Your task to perform on an android device: set an alarm Image 0: 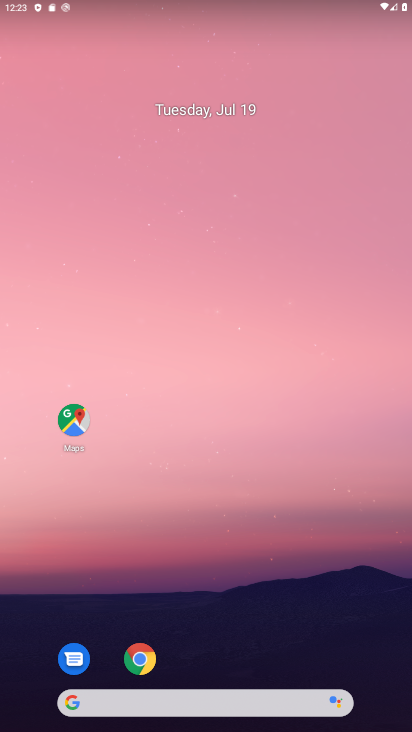
Step 0: drag from (211, 703) to (204, 246)
Your task to perform on an android device: set an alarm Image 1: 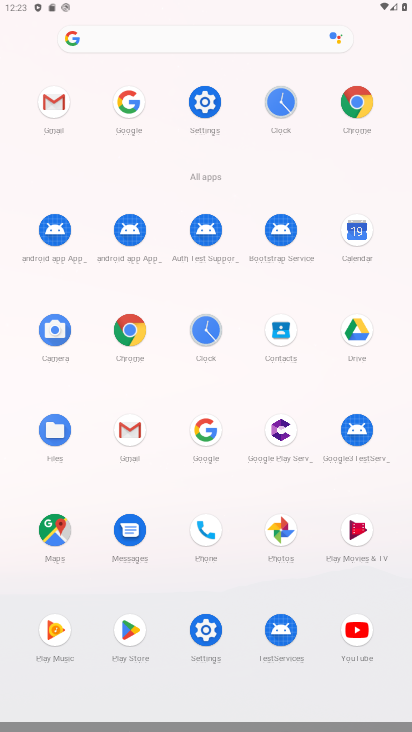
Step 1: click (199, 338)
Your task to perform on an android device: set an alarm Image 2: 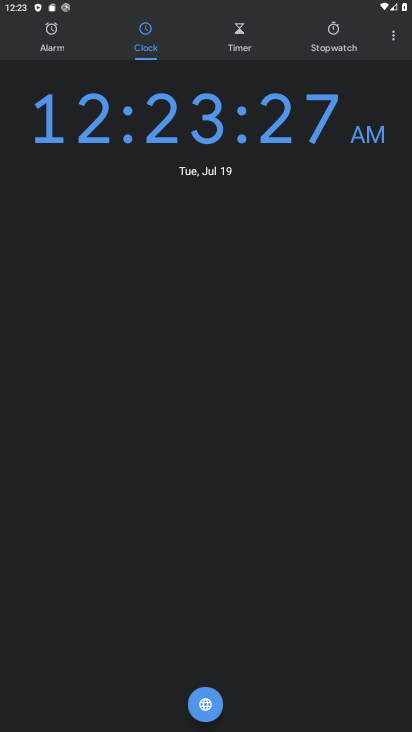
Step 2: click (57, 35)
Your task to perform on an android device: set an alarm Image 3: 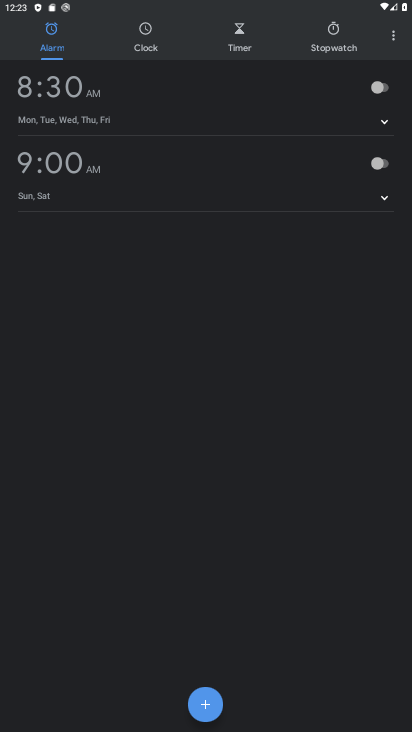
Step 3: click (207, 694)
Your task to perform on an android device: set an alarm Image 4: 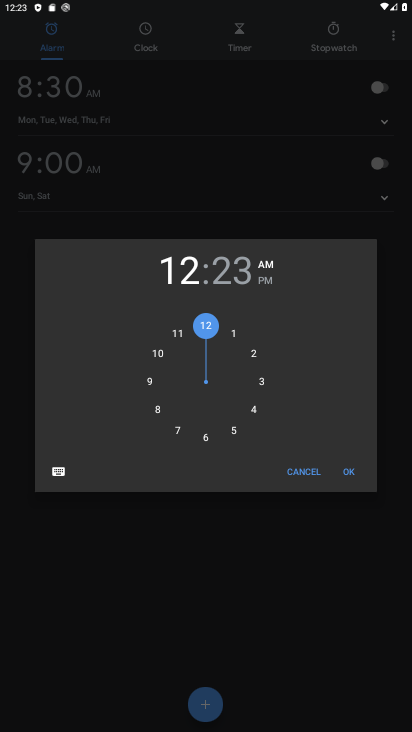
Step 4: click (233, 432)
Your task to perform on an android device: set an alarm Image 5: 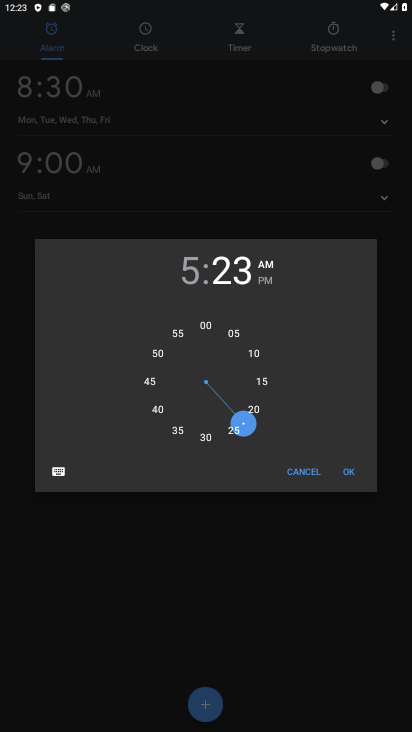
Step 5: click (351, 478)
Your task to perform on an android device: set an alarm Image 6: 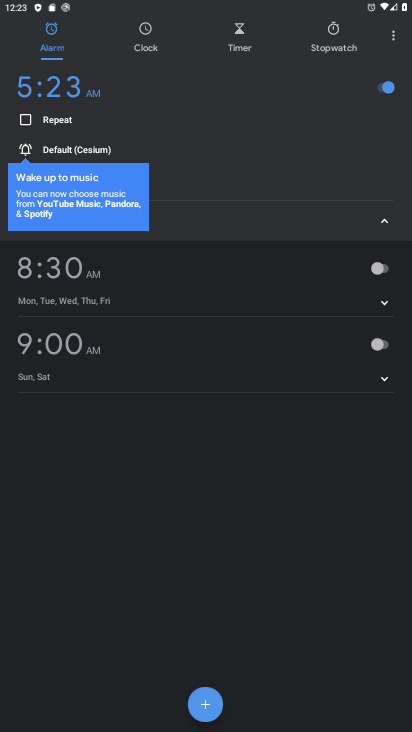
Step 6: task complete